Your task to perform on an android device: See recent photos Image 0: 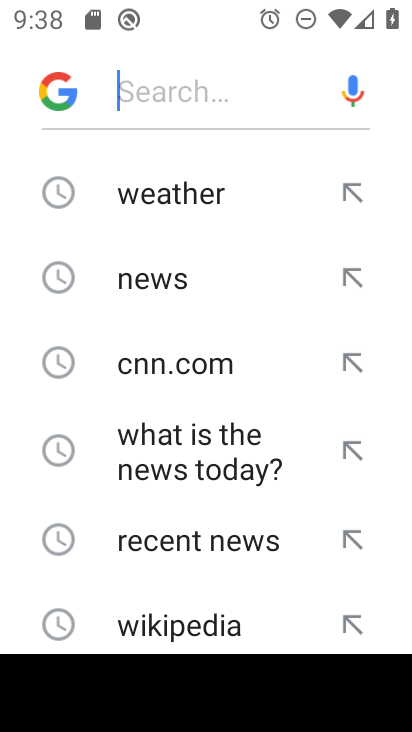
Step 0: press home button
Your task to perform on an android device: See recent photos Image 1: 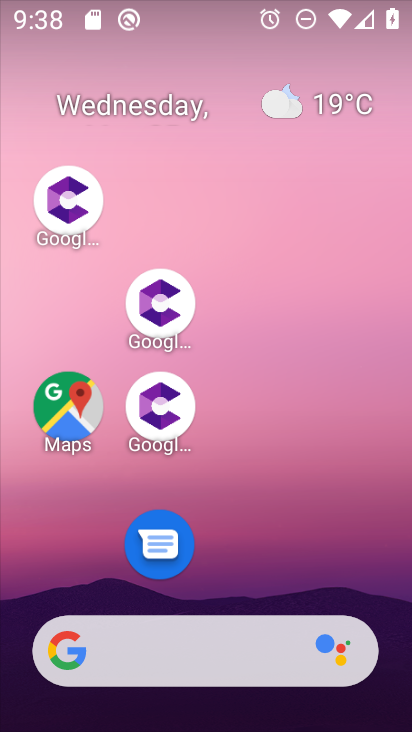
Step 1: click (251, 1)
Your task to perform on an android device: See recent photos Image 2: 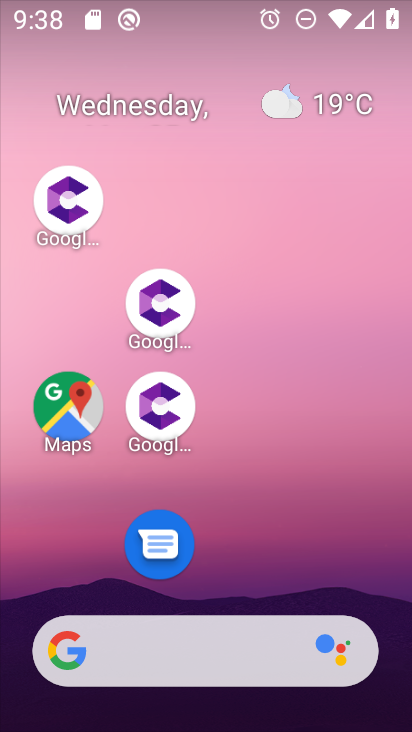
Step 2: drag from (263, 519) to (211, 235)
Your task to perform on an android device: See recent photos Image 3: 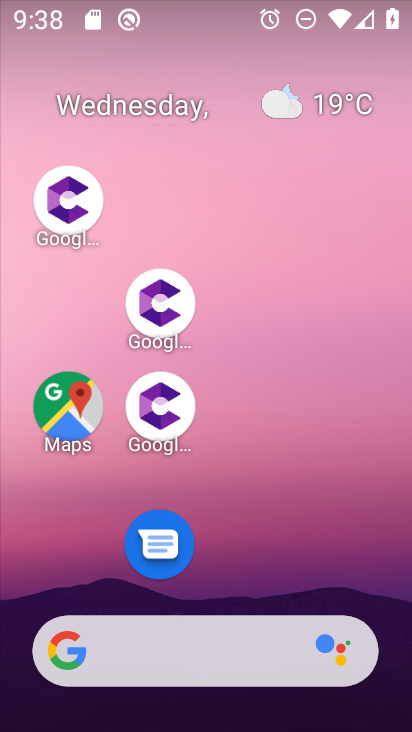
Step 3: drag from (344, 565) to (340, 216)
Your task to perform on an android device: See recent photos Image 4: 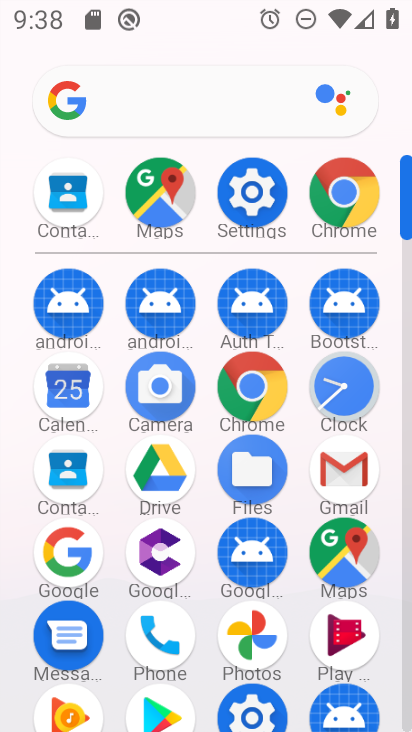
Step 4: click (249, 626)
Your task to perform on an android device: See recent photos Image 5: 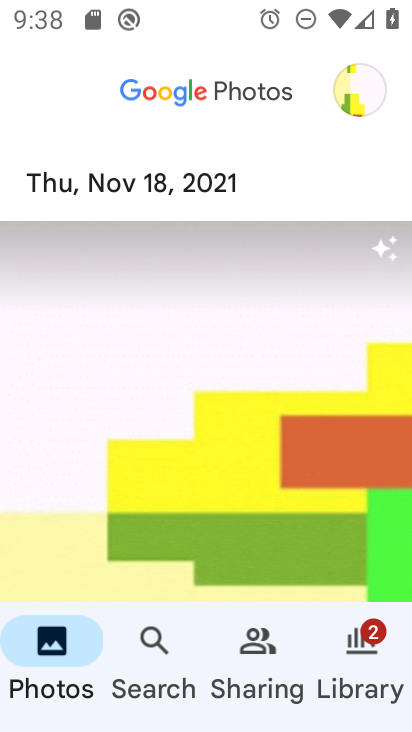
Step 5: task complete